Your task to perform on an android device: Go to network settings Image 0: 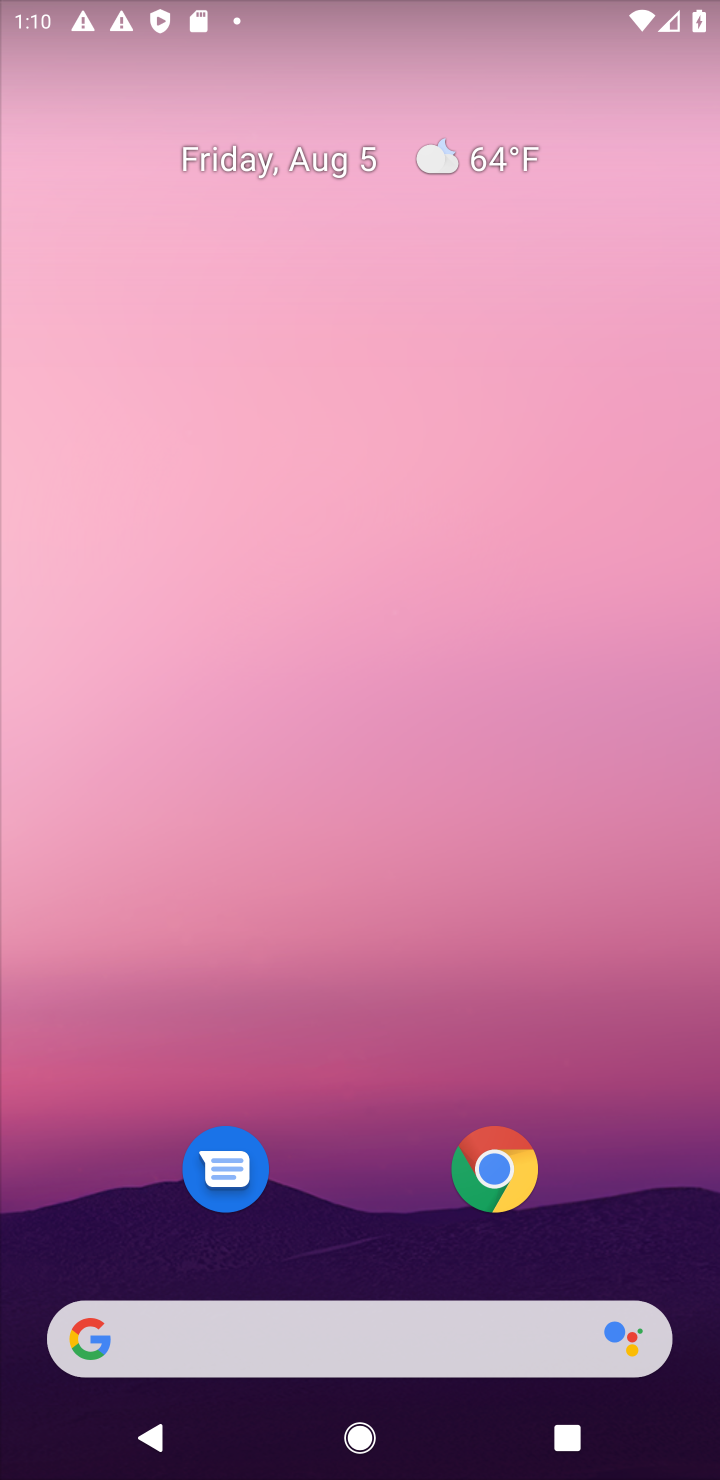
Step 0: drag from (329, 1118) to (228, 345)
Your task to perform on an android device: Go to network settings Image 1: 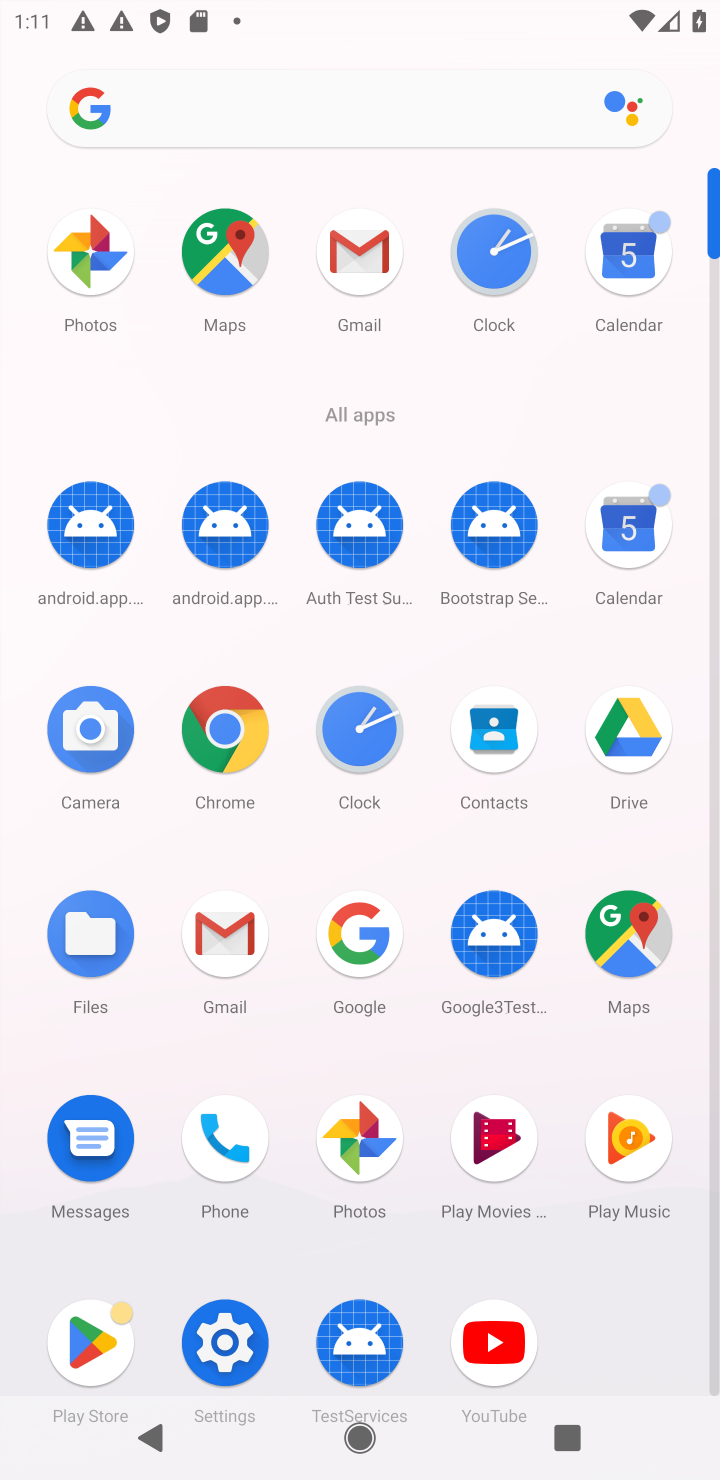
Step 1: click (205, 1335)
Your task to perform on an android device: Go to network settings Image 2: 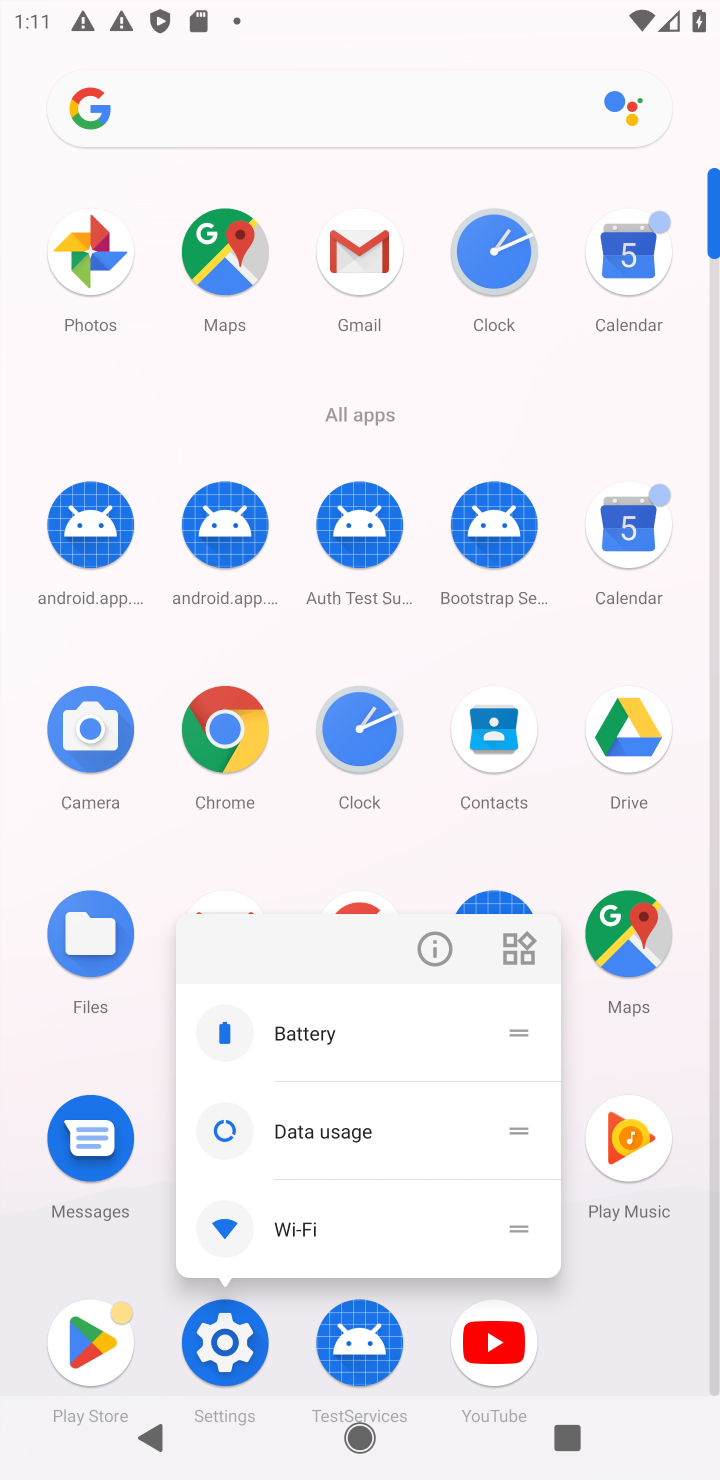
Step 2: click (217, 1350)
Your task to perform on an android device: Go to network settings Image 3: 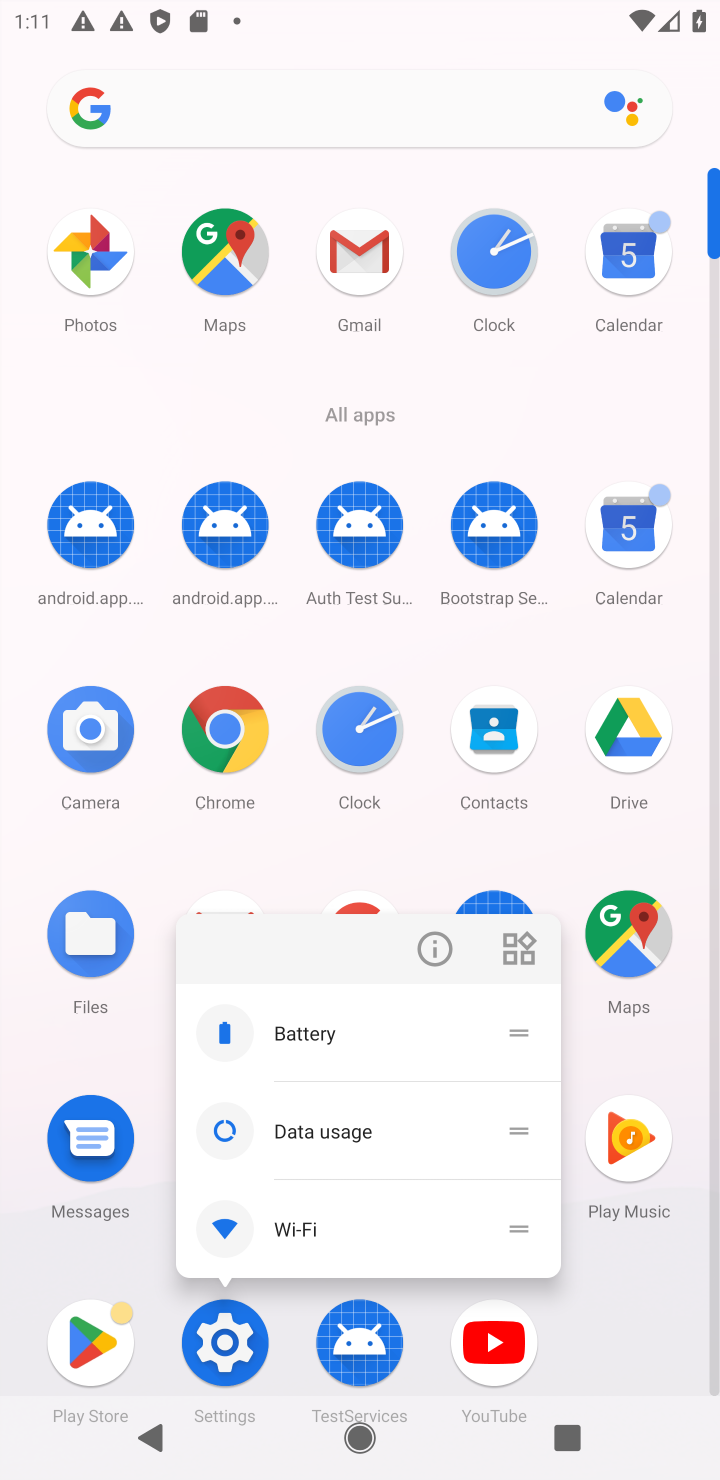
Step 3: click (217, 1350)
Your task to perform on an android device: Go to network settings Image 4: 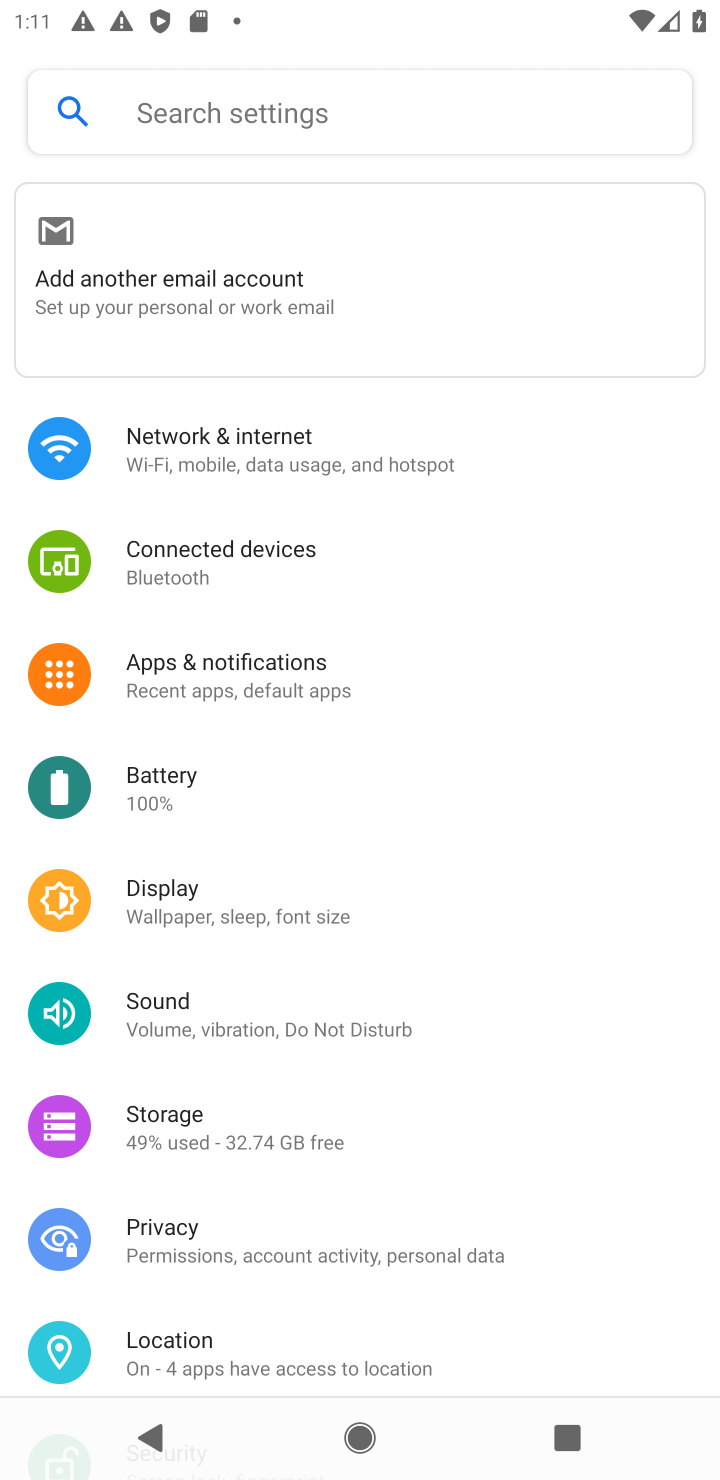
Step 4: click (255, 475)
Your task to perform on an android device: Go to network settings Image 5: 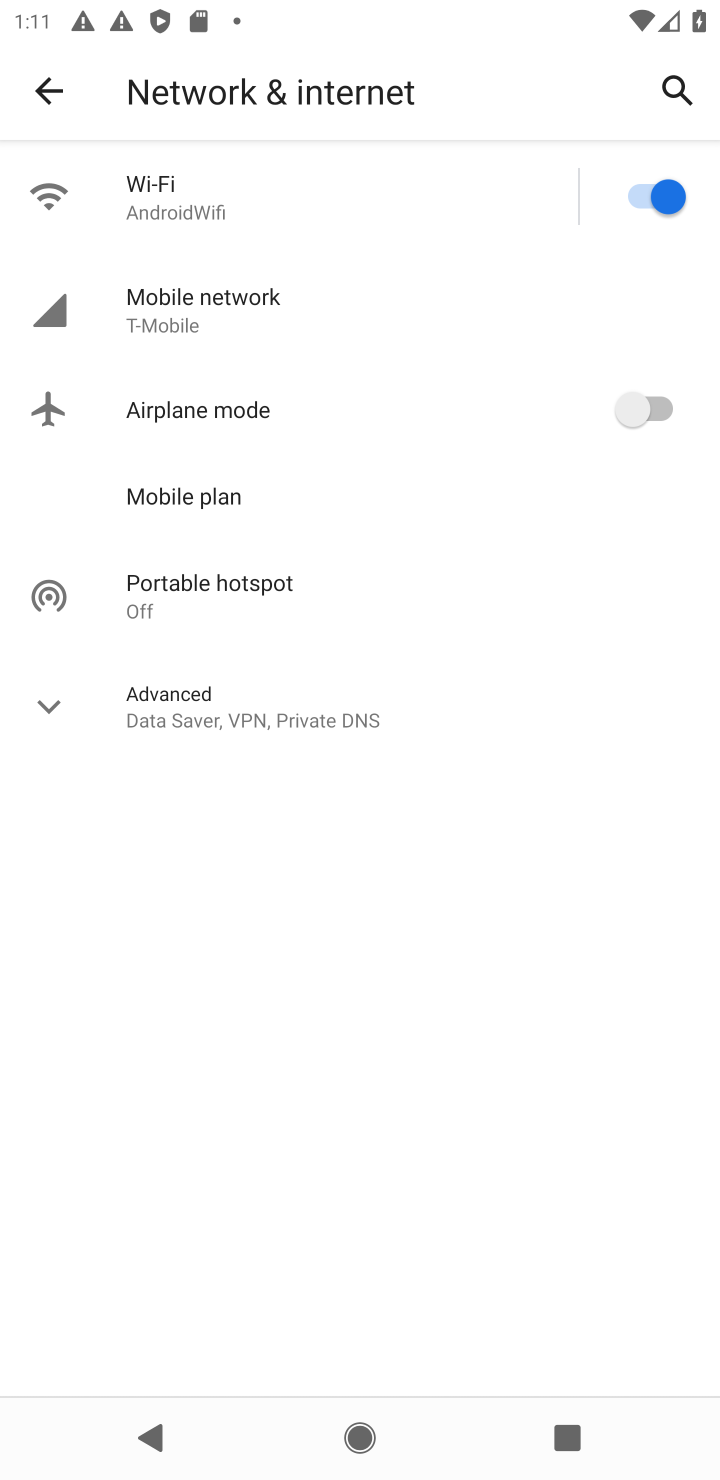
Step 5: task complete